Your task to perform on an android device: see sites visited before in the chrome app Image 0: 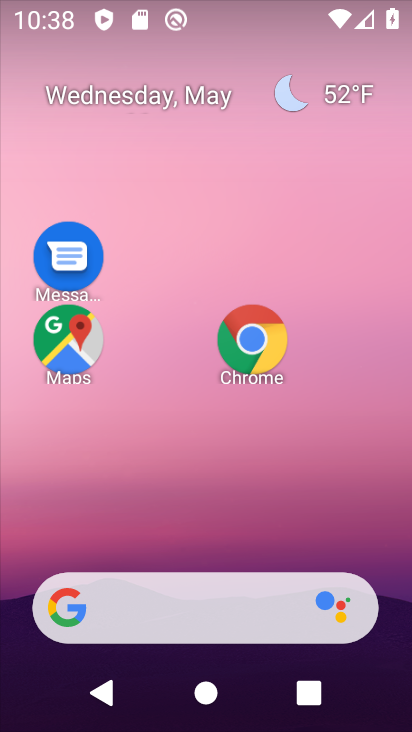
Step 0: click (251, 350)
Your task to perform on an android device: see sites visited before in the chrome app Image 1: 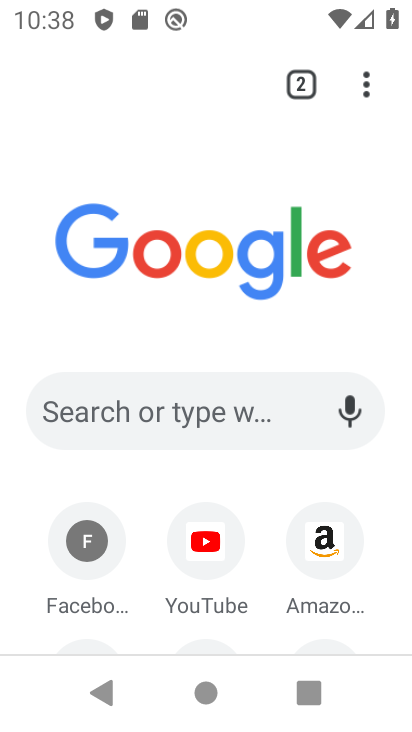
Step 1: click (352, 86)
Your task to perform on an android device: see sites visited before in the chrome app Image 2: 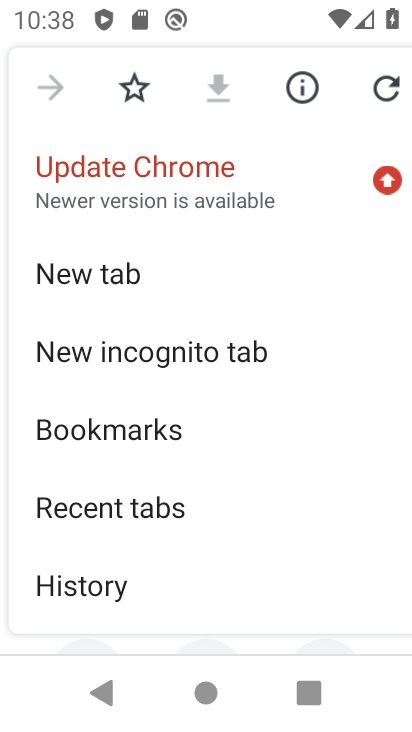
Step 2: drag from (253, 524) to (243, 136)
Your task to perform on an android device: see sites visited before in the chrome app Image 3: 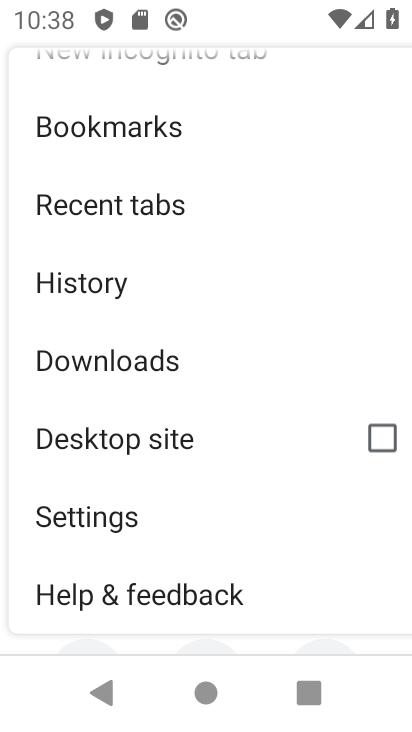
Step 3: click (130, 287)
Your task to perform on an android device: see sites visited before in the chrome app Image 4: 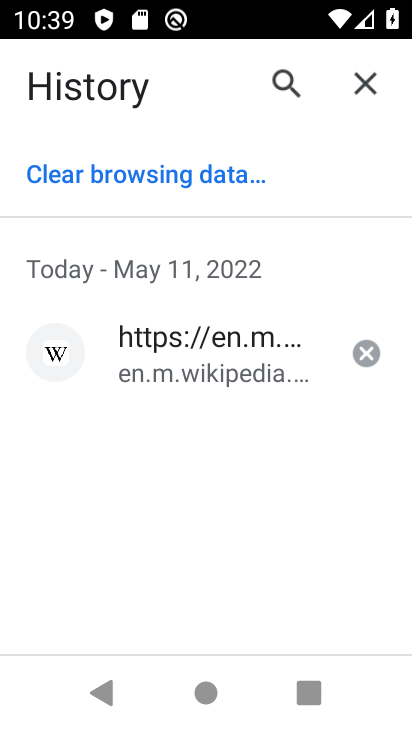
Step 4: task complete